Your task to perform on an android device: When is my next appointment? Image 0: 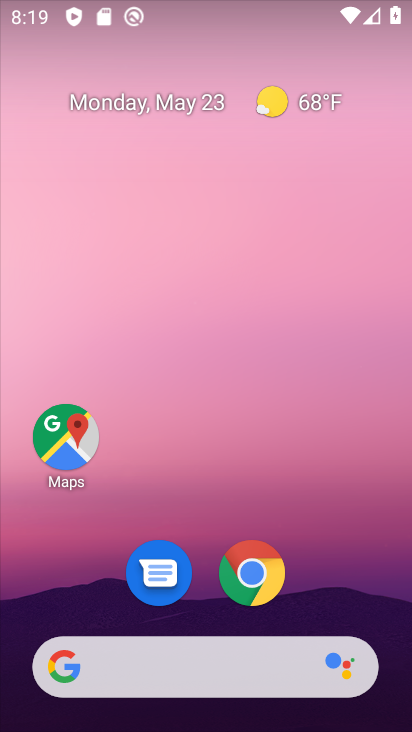
Step 0: drag from (212, 608) to (260, 123)
Your task to perform on an android device: When is my next appointment? Image 1: 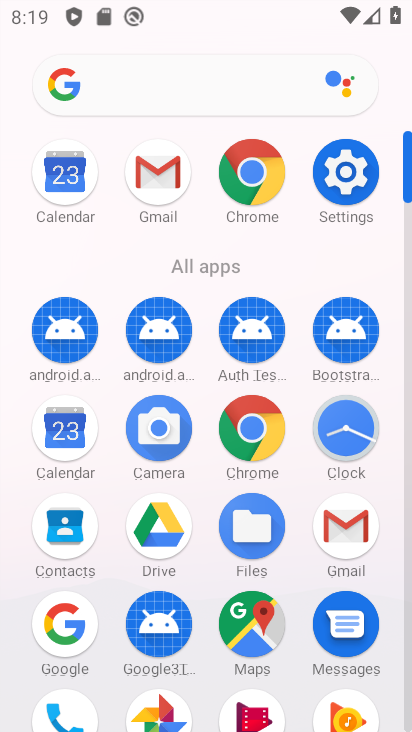
Step 1: click (61, 427)
Your task to perform on an android device: When is my next appointment? Image 2: 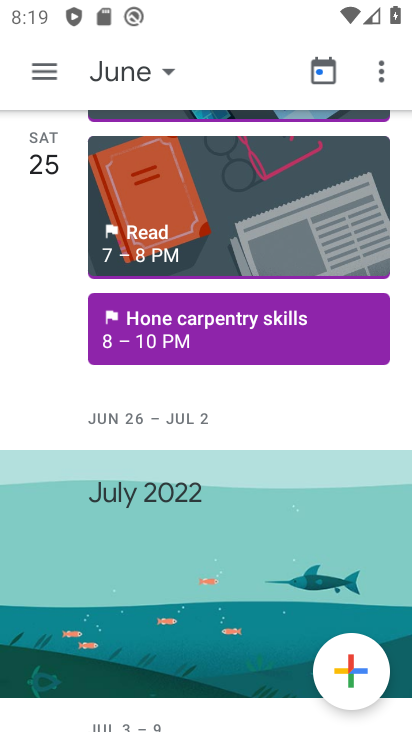
Step 2: click (144, 81)
Your task to perform on an android device: When is my next appointment? Image 3: 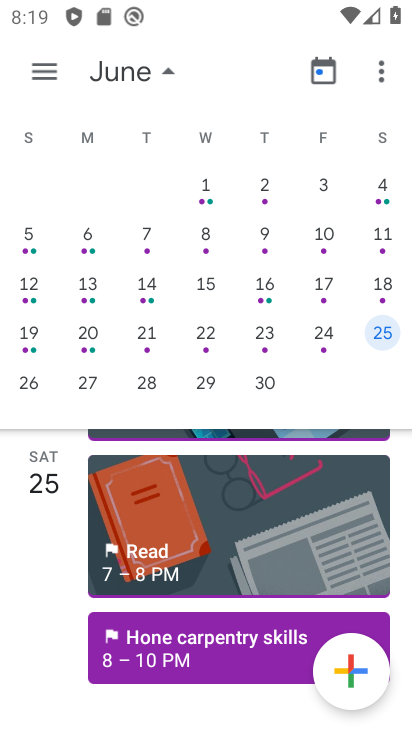
Step 3: drag from (52, 205) to (398, 214)
Your task to perform on an android device: When is my next appointment? Image 4: 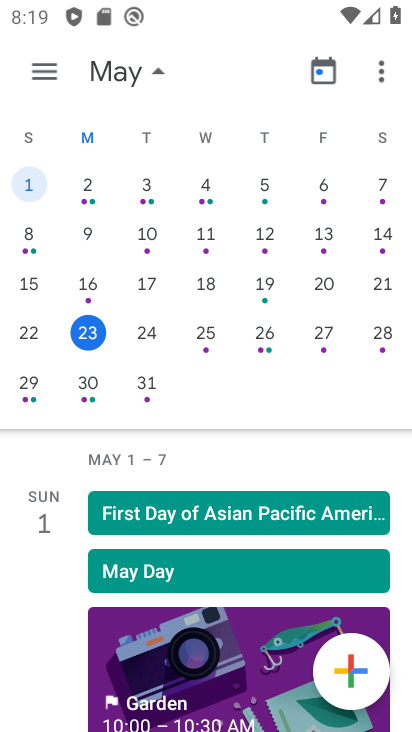
Step 4: click (87, 322)
Your task to perform on an android device: When is my next appointment? Image 5: 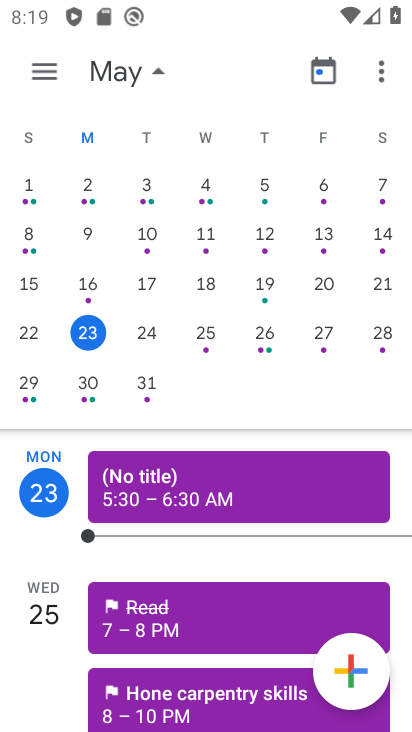
Step 5: click (150, 70)
Your task to perform on an android device: When is my next appointment? Image 6: 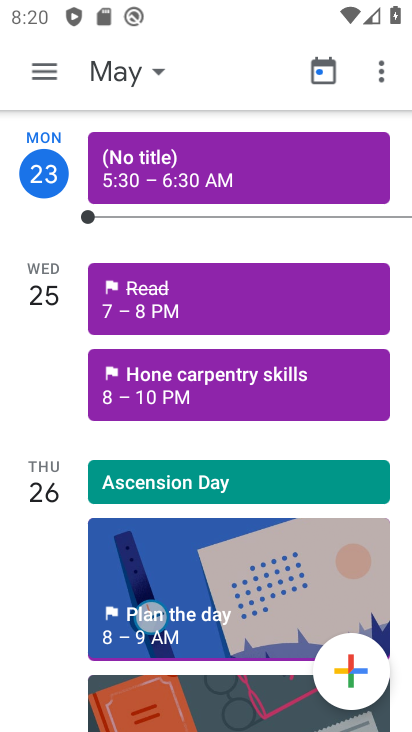
Step 6: task complete